Your task to perform on an android device: Go to location settings Image 0: 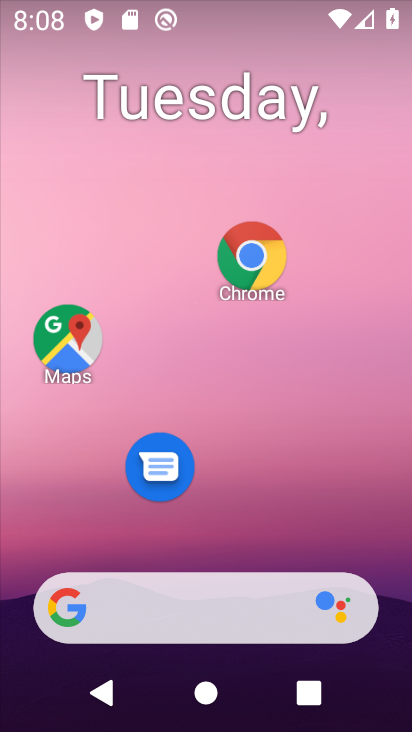
Step 0: drag from (221, 447) to (160, 80)
Your task to perform on an android device: Go to location settings Image 1: 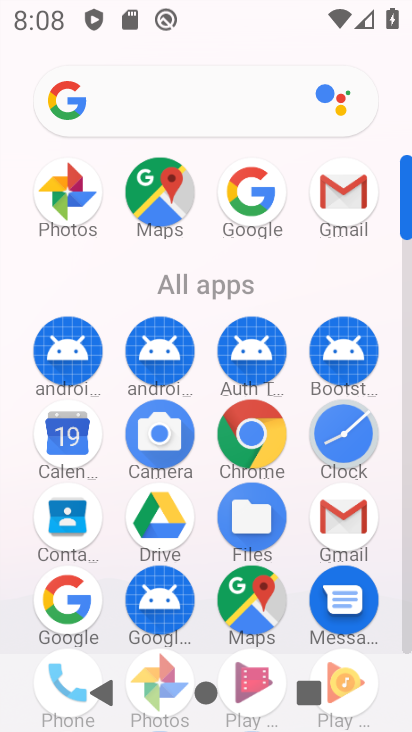
Step 1: drag from (207, 405) to (190, 138)
Your task to perform on an android device: Go to location settings Image 2: 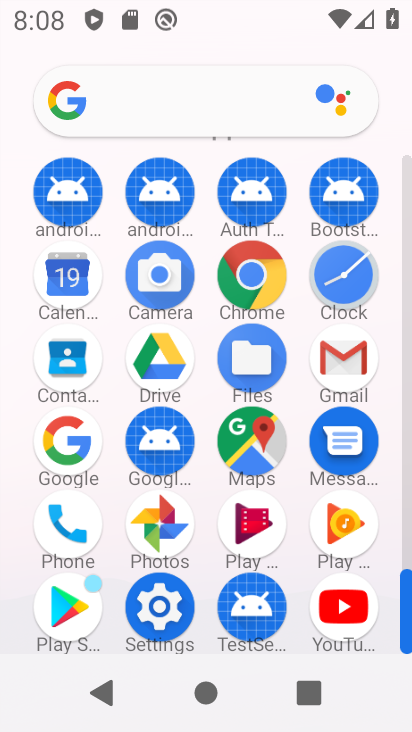
Step 2: click (156, 608)
Your task to perform on an android device: Go to location settings Image 3: 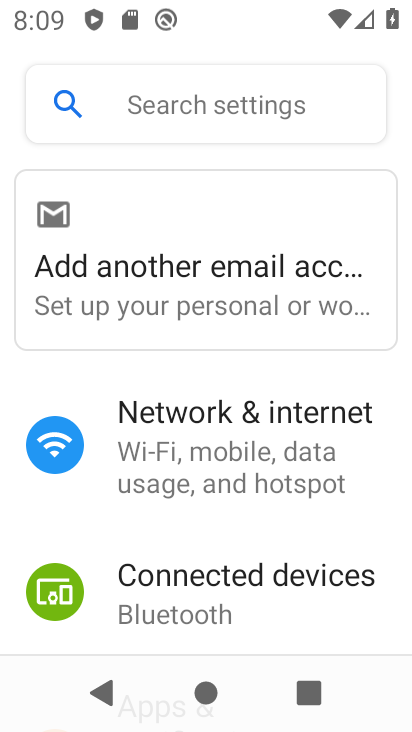
Step 3: drag from (280, 623) to (234, 143)
Your task to perform on an android device: Go to location settings Image 4: 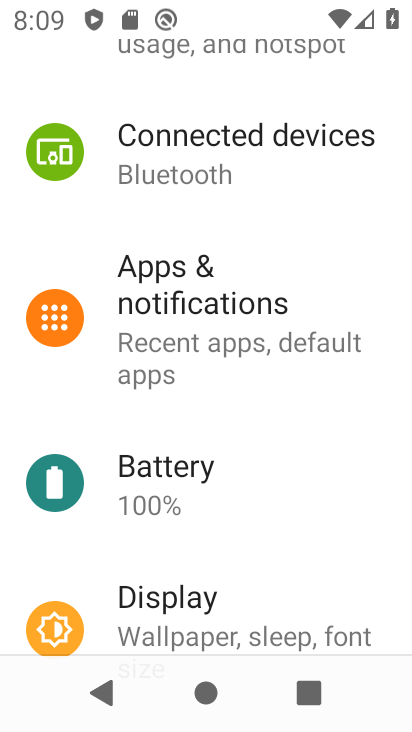
Step 4: drag from (248, 569) to (215, 180)
Your task to perform on an android device: Go to location settings Image 5: 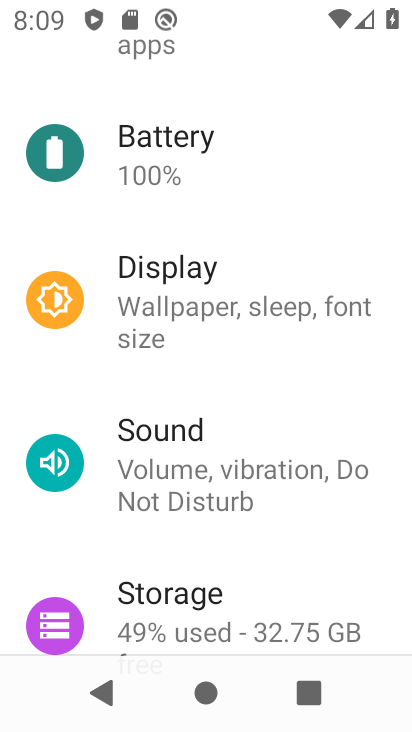
Step 5: drag from (225, 585) to (252, 265)
Your task to perform on an android device: Go to location settings Image 6: 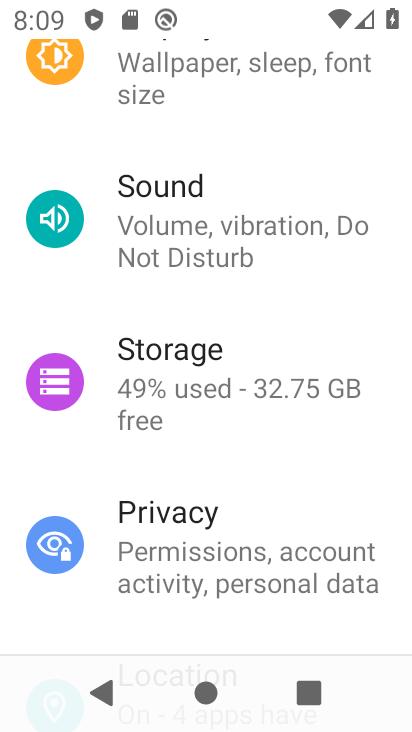
Step 6: drag from (235, 611) to (239, 476)
Your task to perform on an android device: Go to location settings Image 7: 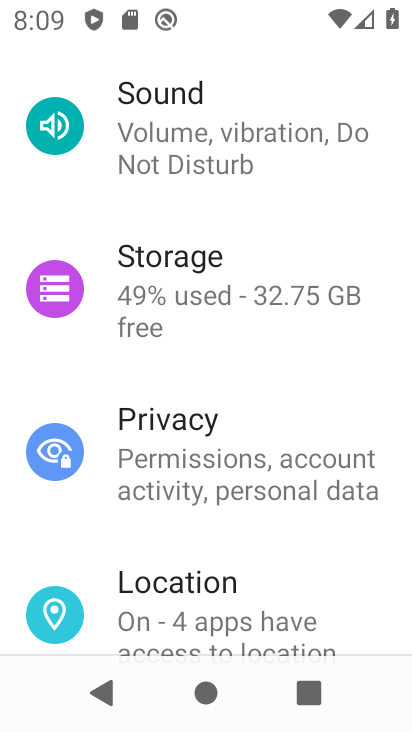
Step 7: click (222, 601)
Your task to perform on an android device: Go to location settings Image 8: 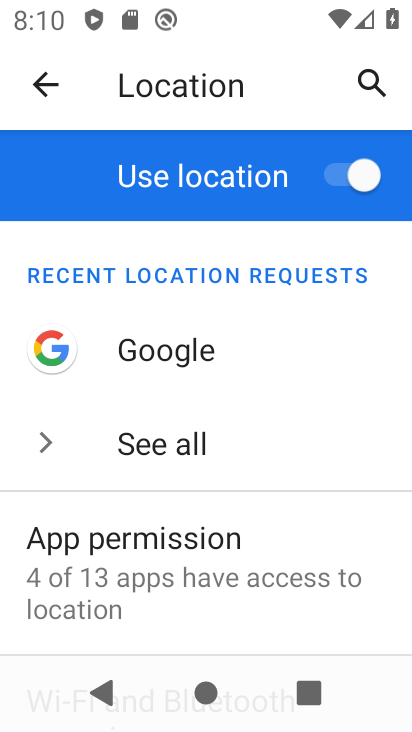
Step 8: task complete